Your task to perform on an android device: Open notification settings Image 0: 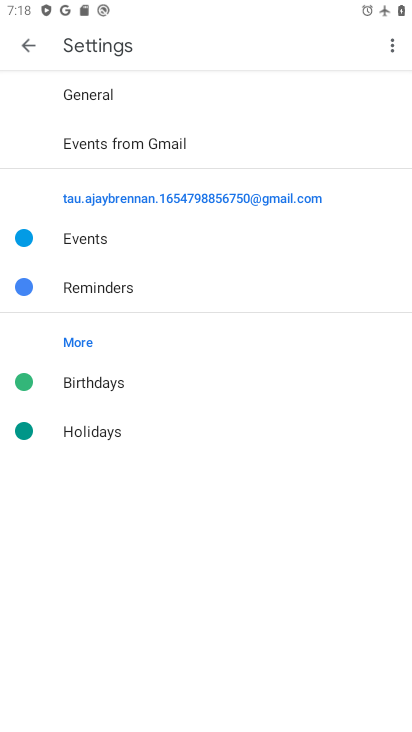
Step 0: press home button
Your task to perform on an android device: Open notification settings Image 1: 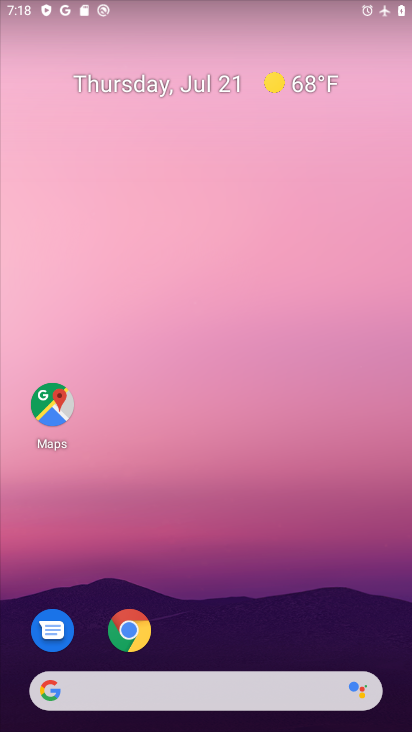
Step 1: drag from (233, 624) to (134, 2)
Your task to perform on an android device: Open notification settings Image 2: 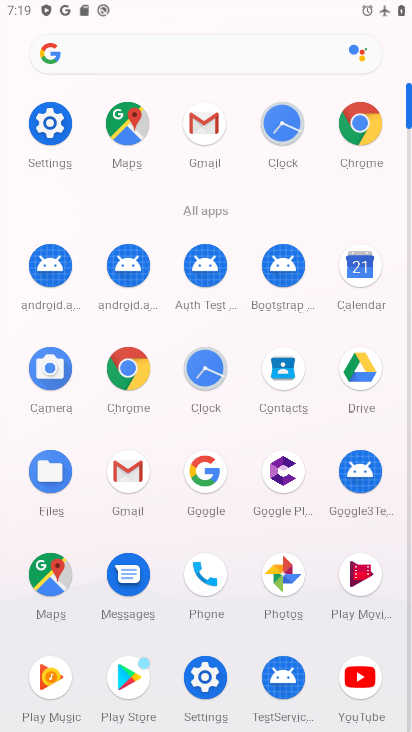
Step 2: click (55, 146)
Your task to perform on an android device: Open notification settings Image 3: 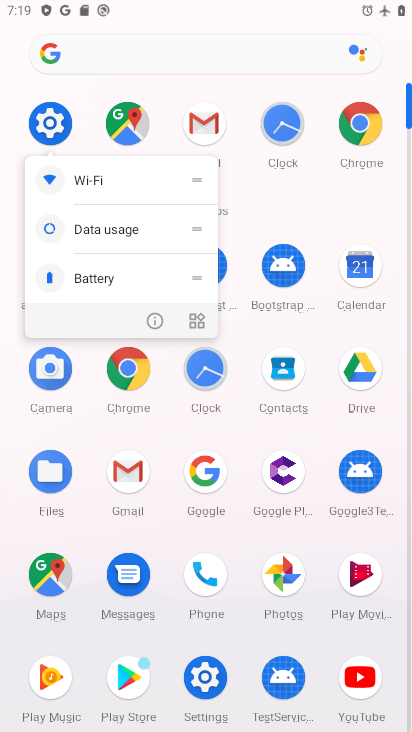
Step 3: click (56, 147)
Your task to perform on an android device: Open notification settings Image 4: 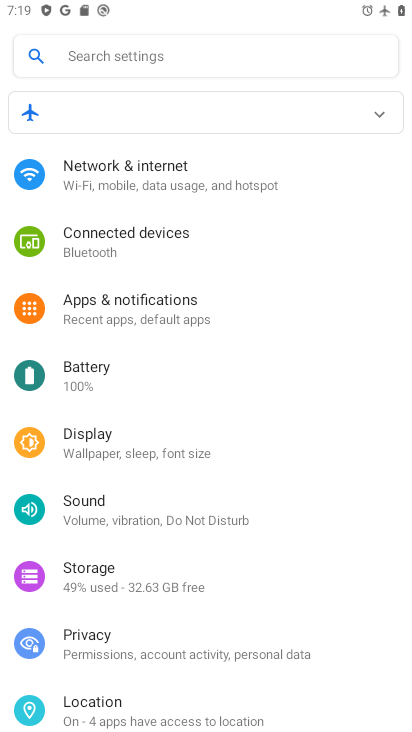
Step 4: click (149, 313)
Your task to perform on an android device: Open notification settings Image 5: 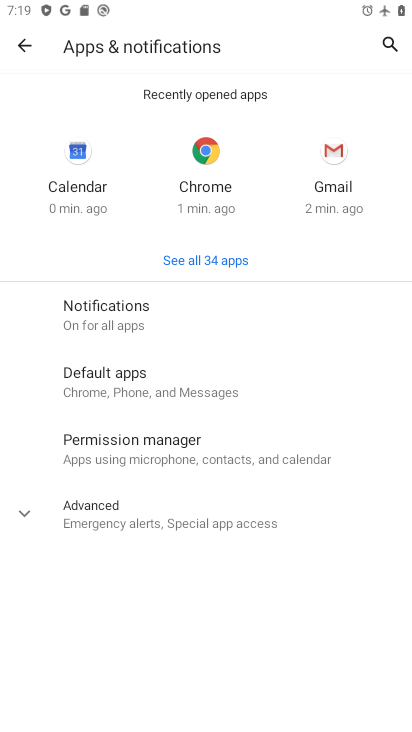
Step 5: task complete